Your task to perform on an android device: Add "usb-c to usb-a" to the cart on walmart, then select checkout. Image 0: 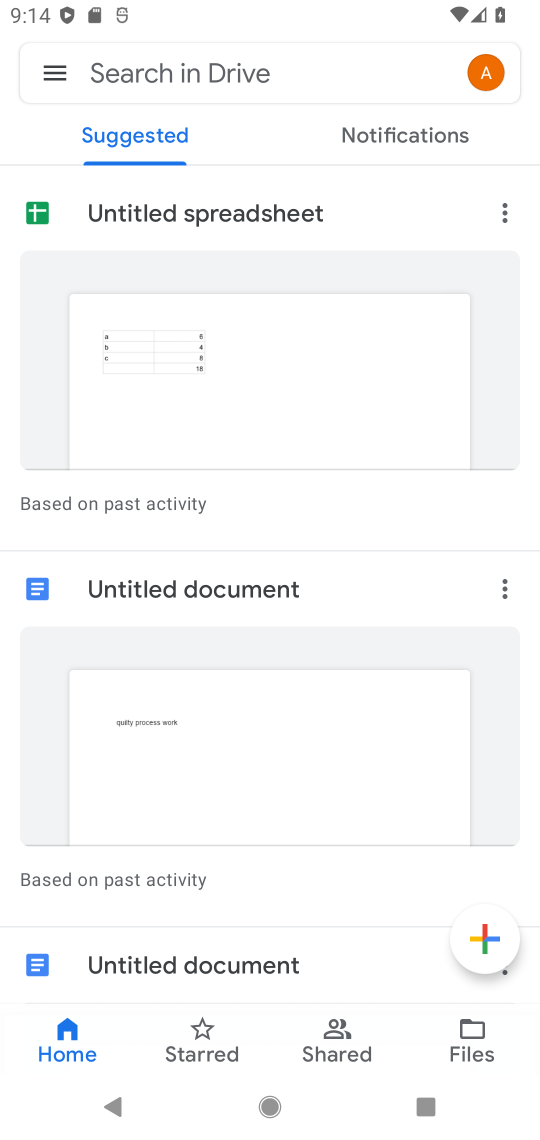
Step 0: press home button
Your task to perform on an android device: Add "usb-c to usb-a" to the cart on walmart, then select checkout. Image 1: 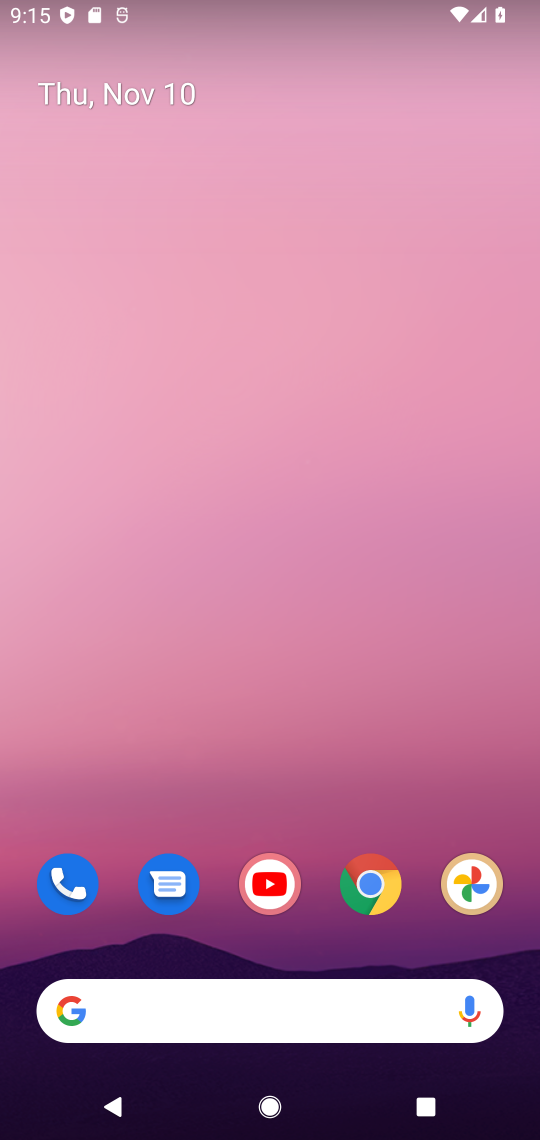
Step 1: click (227, 1007)
Your task to perform on an android device: Add "usb-c to usb-a" to the cart on walmart, then select checkout. Image 2: 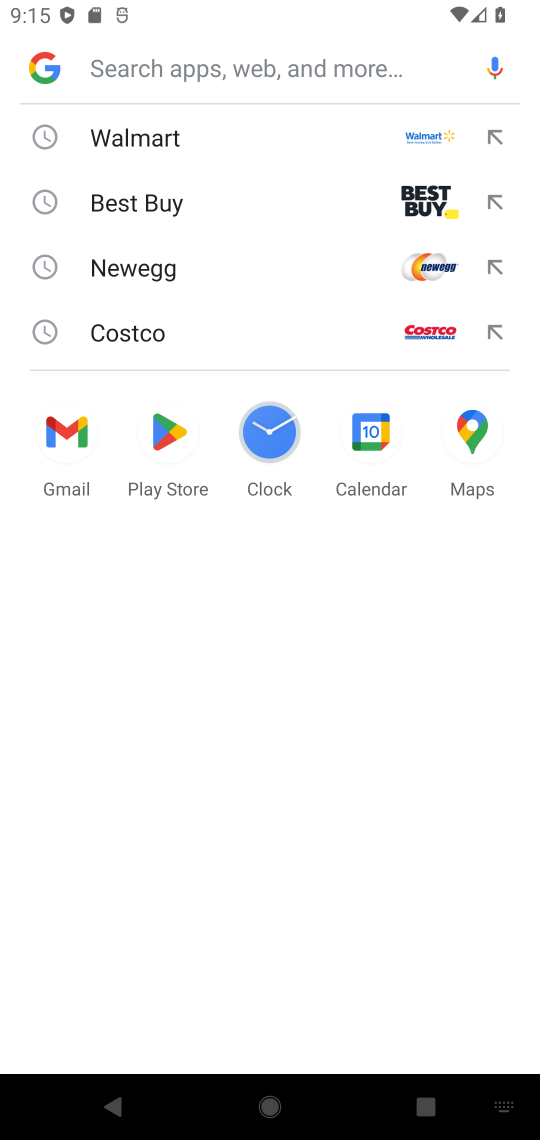
Step 2: click (162, 137)
Your task to perform on an android device: Add "usb-c to usb-a" to the cart on walmart, then select checkout. Image 3: 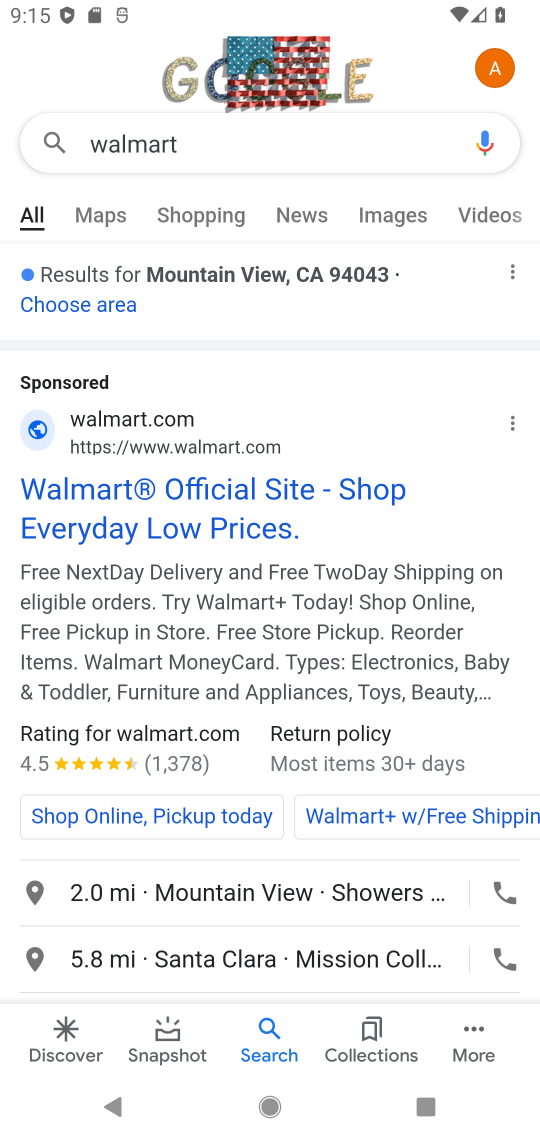
Step 3: click (90, 421)
Your task to perform on an android device: Add "usb-c to usb-a" to the cart on walmart, then select checkout. Image 4: 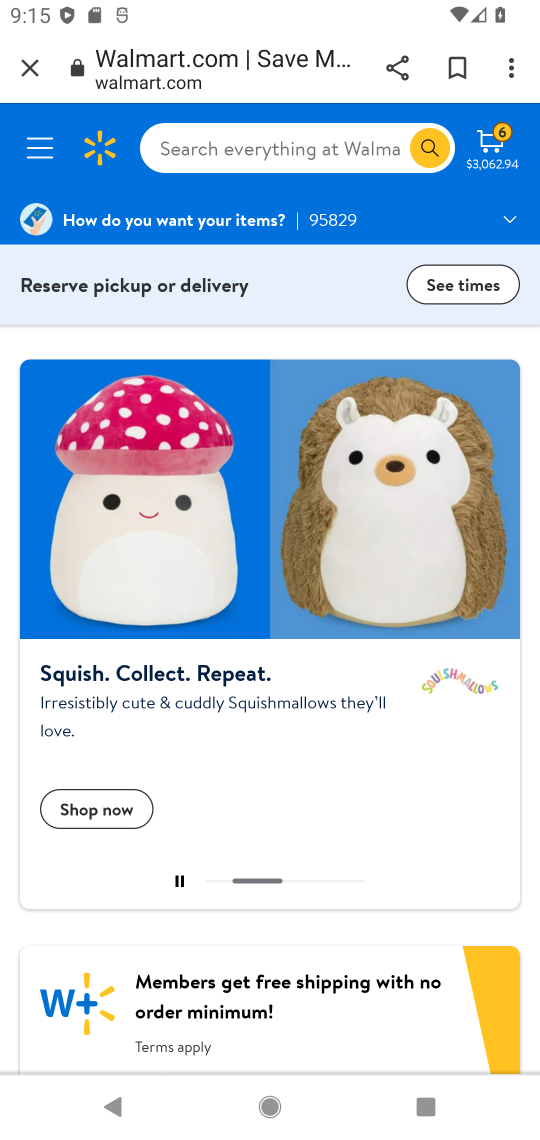
Step 4: click (239, 145)
Your task to perform on an android device: Add "usb-c to usb-a" to the cart on walmart, then select checkout. Image 5: 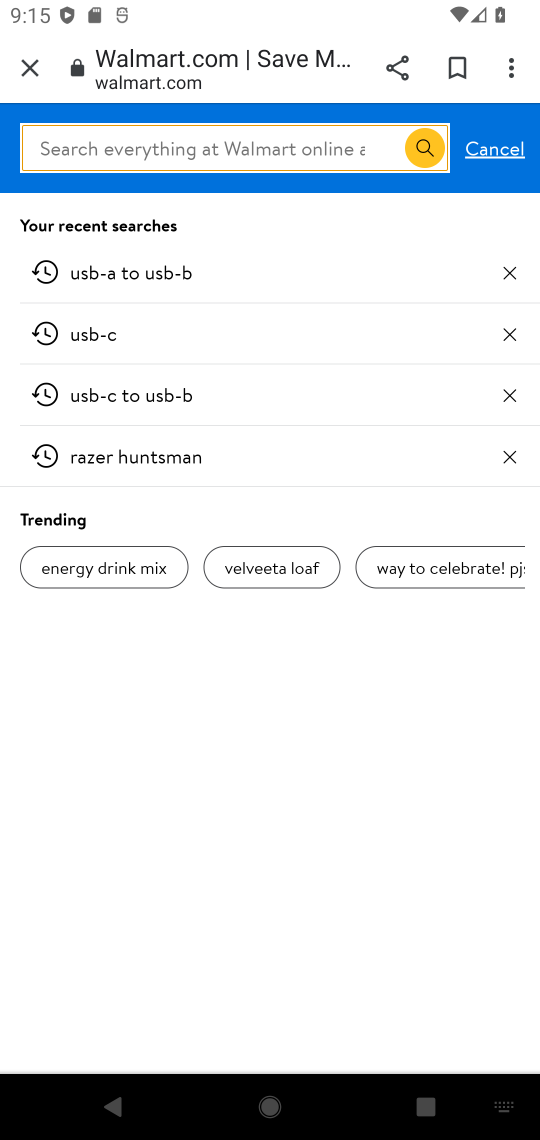
Step 5: type "usb-c to usb-a"
Your task to perform on an android device: Add "usb-c to usb-a" to the cart on walmart, then select checkout. Image 6: 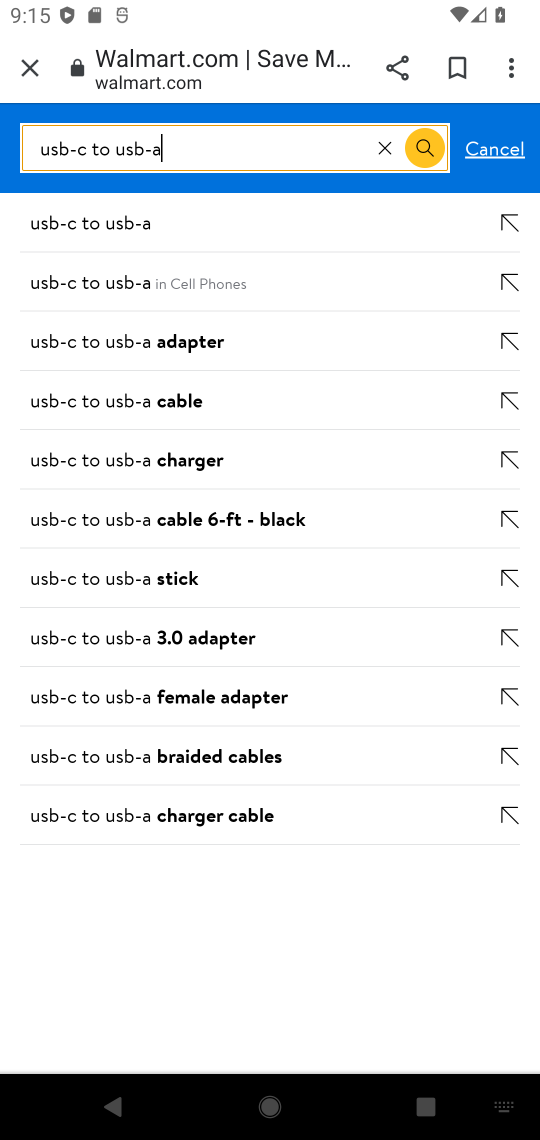
Step 6: click (106, 231)
Your task to perform on an android device: Add "usb-c to usb-a" to the cart on walmart, then select checkout. Image 7: 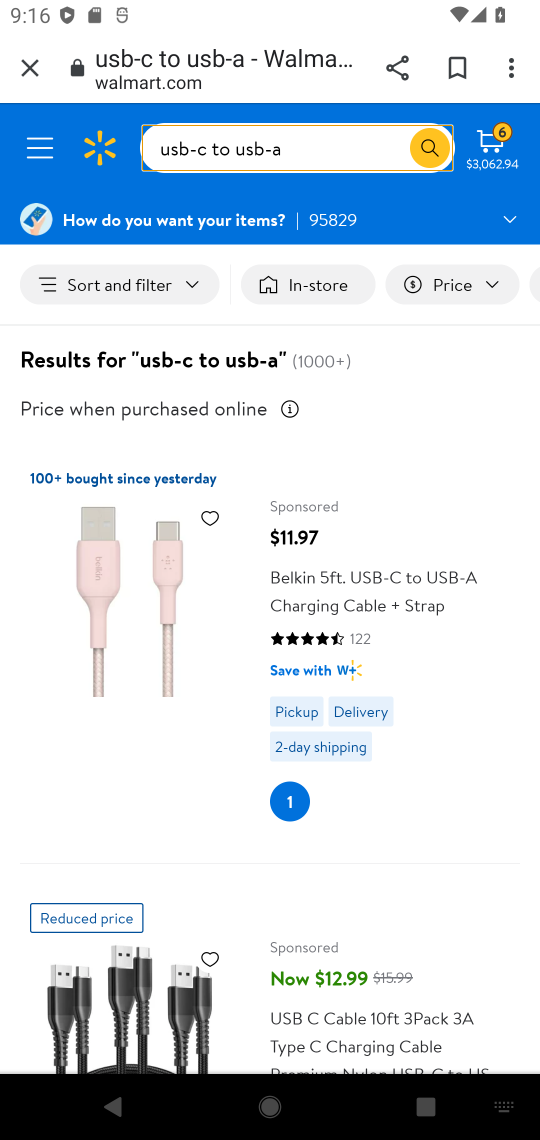
Step 7: click (287, 800)
Your task to perform on an android device: Add "usb-c to usb-a" to the cart on walmart, then select checkout. Image 8: 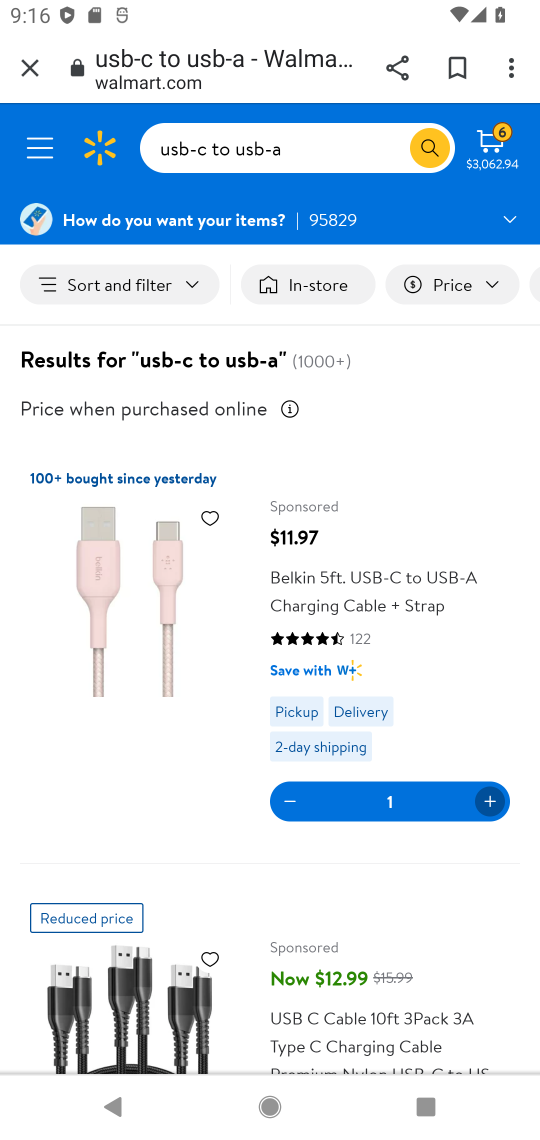
Step 8: click (493, 152)
Your task to perform on an android device: Add "usb-c to usb-a" to the cart on walmart, then select checkout. Image 9: 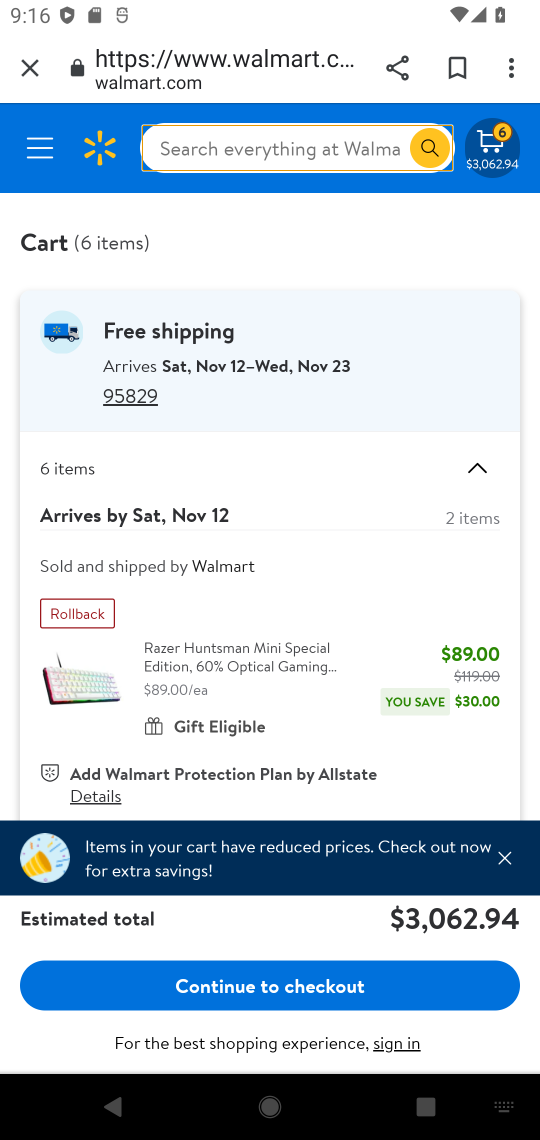
Step 9: click (252, 990)
Your task to perform on an android device: Add "usb-c to usb-a" to the cart on walmart, then select checkout. Image 10: 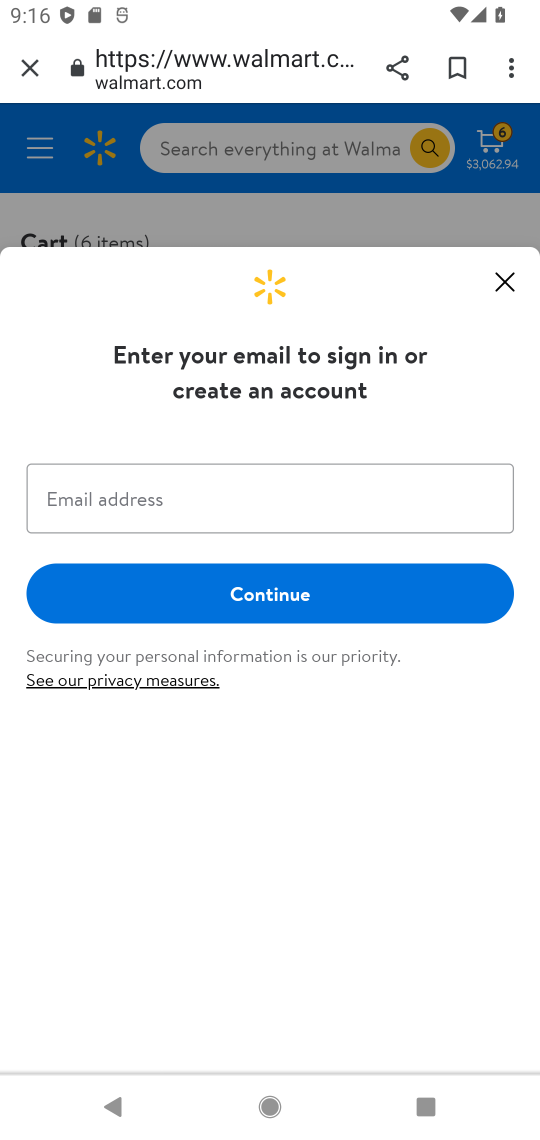
Step 10: task complete